Your task to perform on an android device: set the timer Image 0: 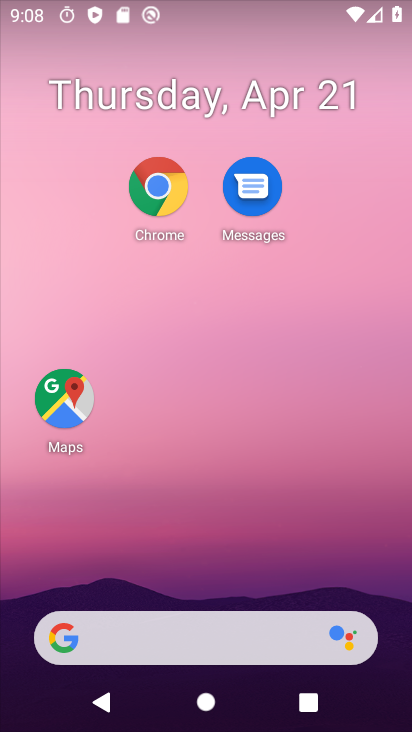
Step 0: drag from (221, 603) to (247, 48)
Your task to perform on an android device: set the timer Image 1: 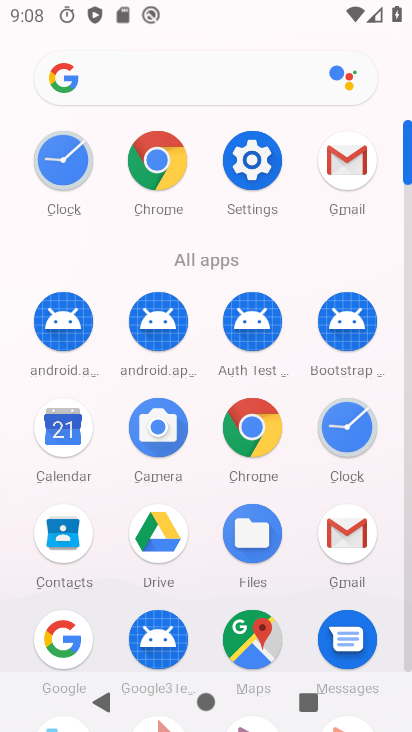
Step 1: click (358, 413)
Your task to perform on an android device: set the timer Image 2: 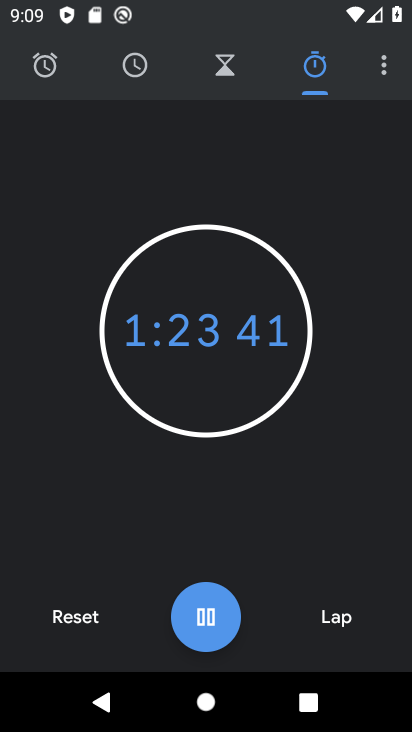
Step 2: click (217, 72)
Your task to perform on an android device: set the timer Image 3: 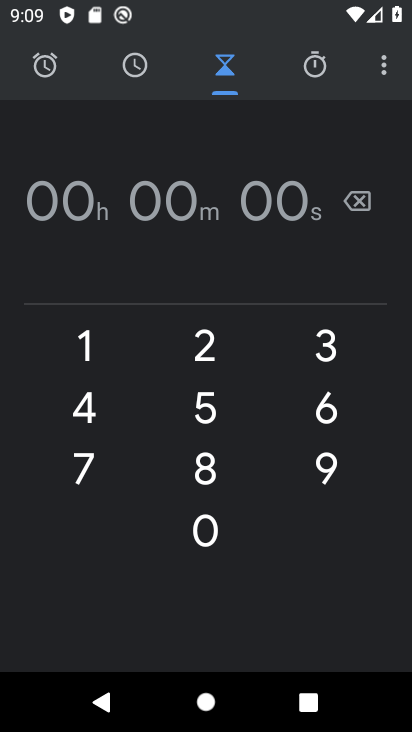
Step 3: click (197, 460)
Your task to perform on an android device: set the timer Image 4: 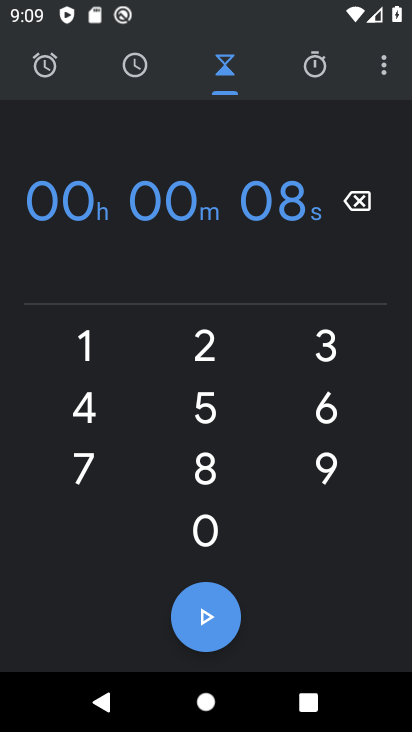
Step 4: click (214, 613)
Your task to perform on an android device: set the timer Image 5: 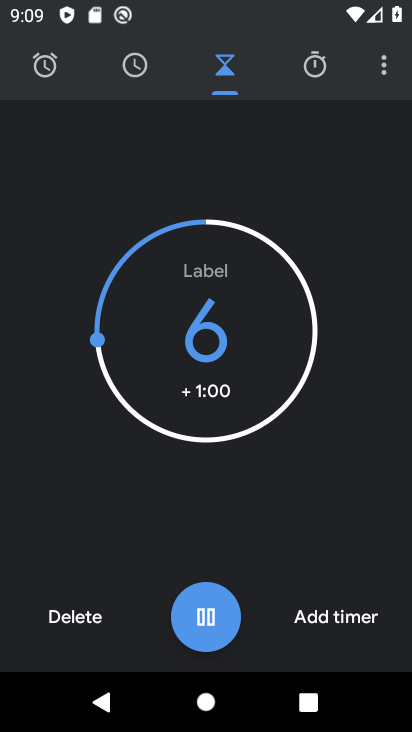
Step 5: task complete